Your task to perform on an android device: visit the assistant section in the google photos Image 0: 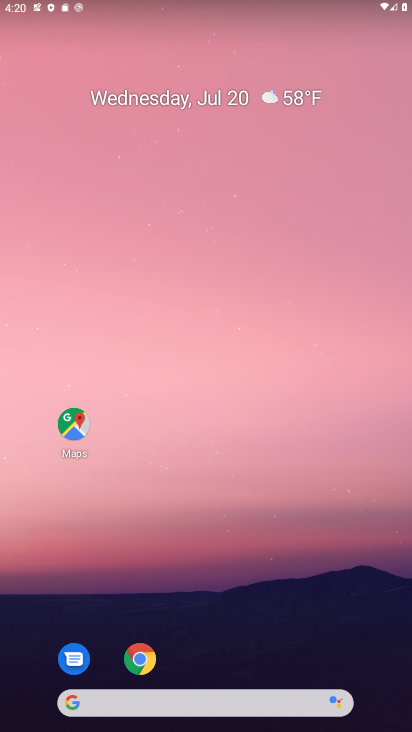
Step 0: drag from (262, 728) to (175, 216)
Your task to perform on an android device: visit the assistant section in the google photos Image 1: 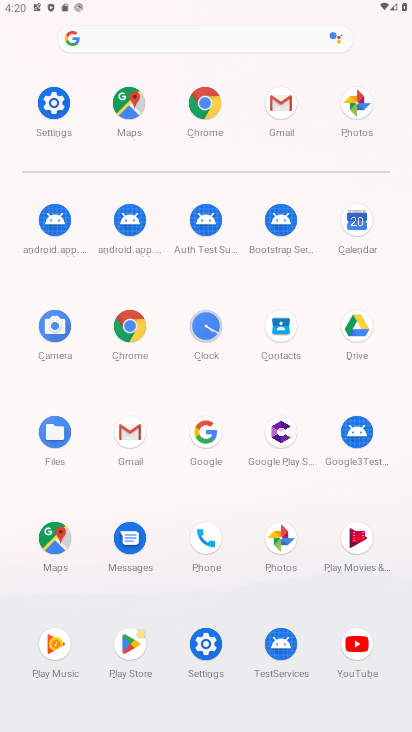
Step 1: click (271, 538)
Your task to perform on an android device: visit the assistant section in the google photos Image 2: 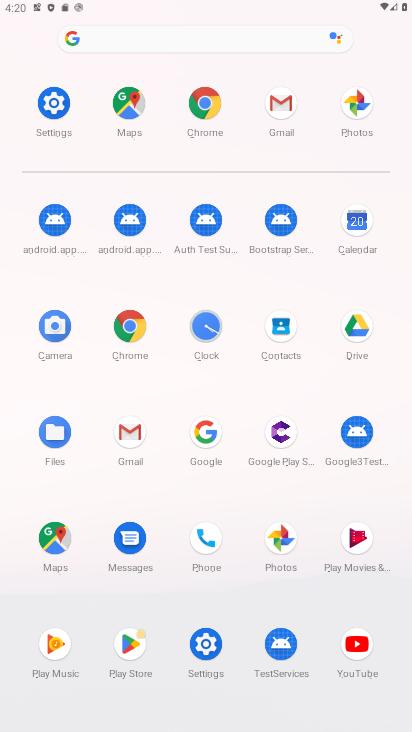
Step 2: click (280, 533)
Your task to perform on an android device: visit the assistant section in the google photos Image 3: 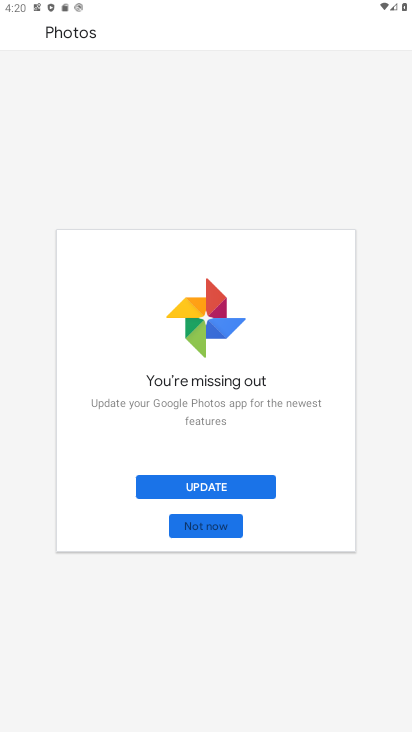
Step 3: click (224, 530)
Your task to perform on an android device: visit the assistant section in the google photos Image 4: 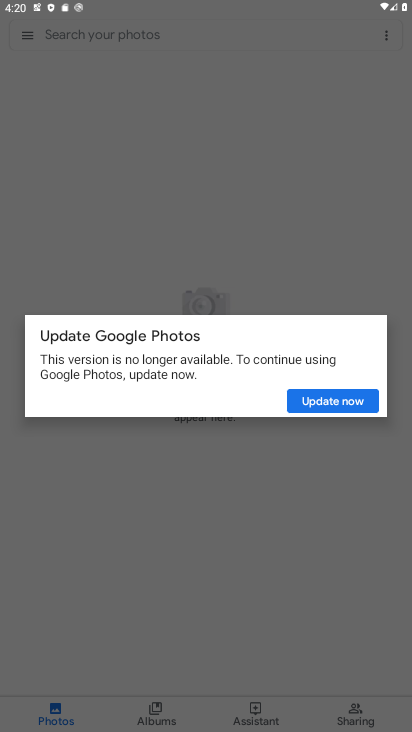
Step 4: click (328, 402)
Your task to perform on an android device: visit the assistant section in the google photos Image 5: 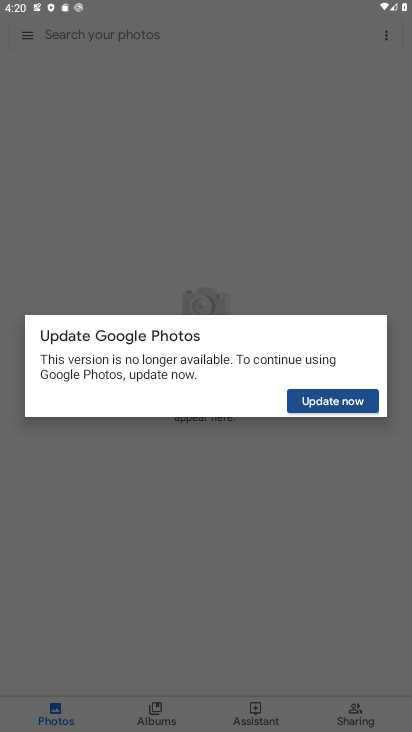
Step 5: click (328, 401)
Your task to perform on an android device: visit the assistant section in the google photos Image 6: 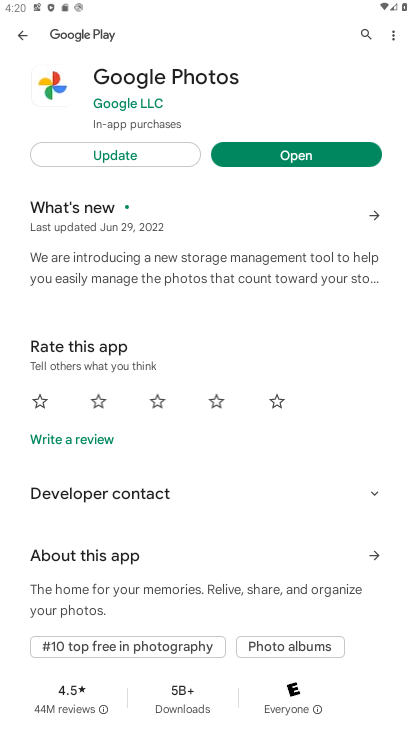
Step 6: click (124, 156)
Your task to perform on an android device: visit the assistant section in the google photos Image 7: 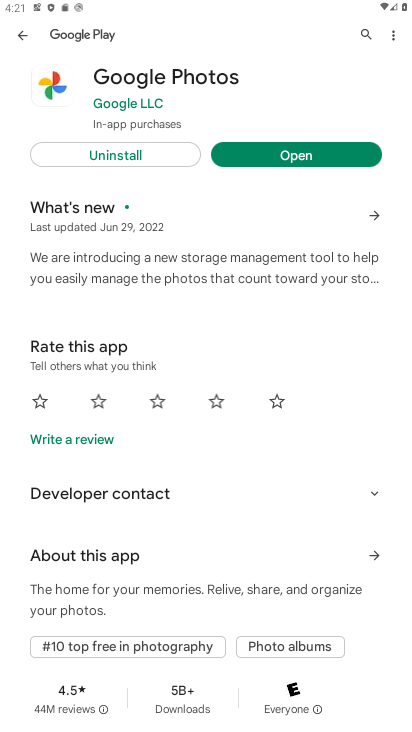
Step 7: click (331, 152)
Your task to perform on an android device: visit the assistant section in the google photos Image 8: 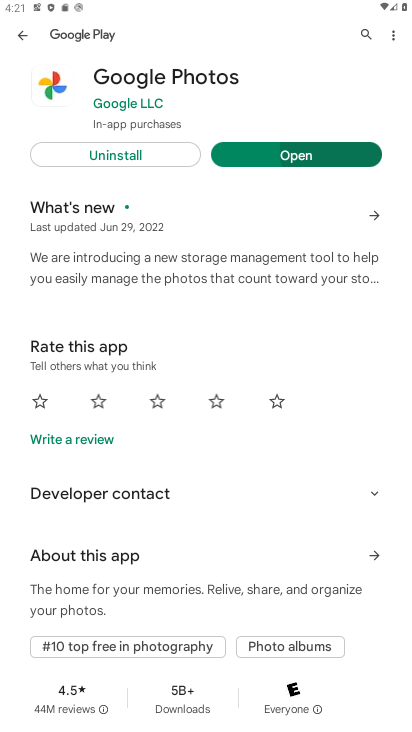
Step 8: click (345, 150)
Your task to perform on an android device: visit the assistant section in the google photos Image 9: 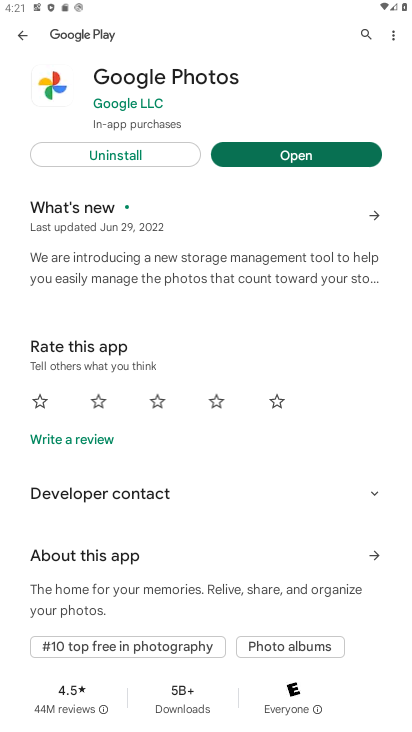
Step 9: click (345, 150)
Your task to perform on an android device: visit the assistant section in the google photos Image 10: 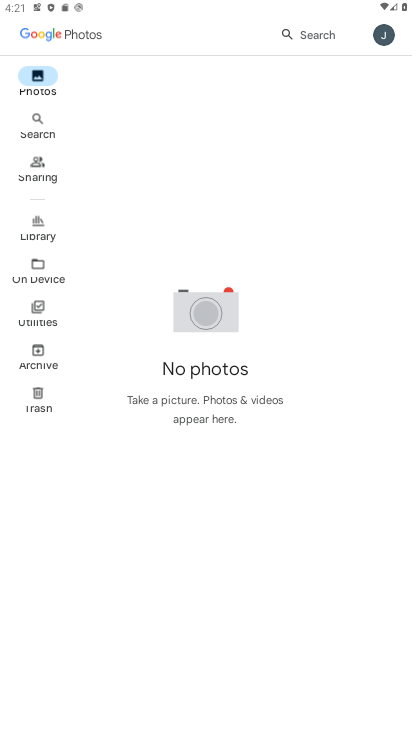
Step 10: task complete